Your task to perform on an android device: Open Google Chrome and open the bookmarks view Image 0: 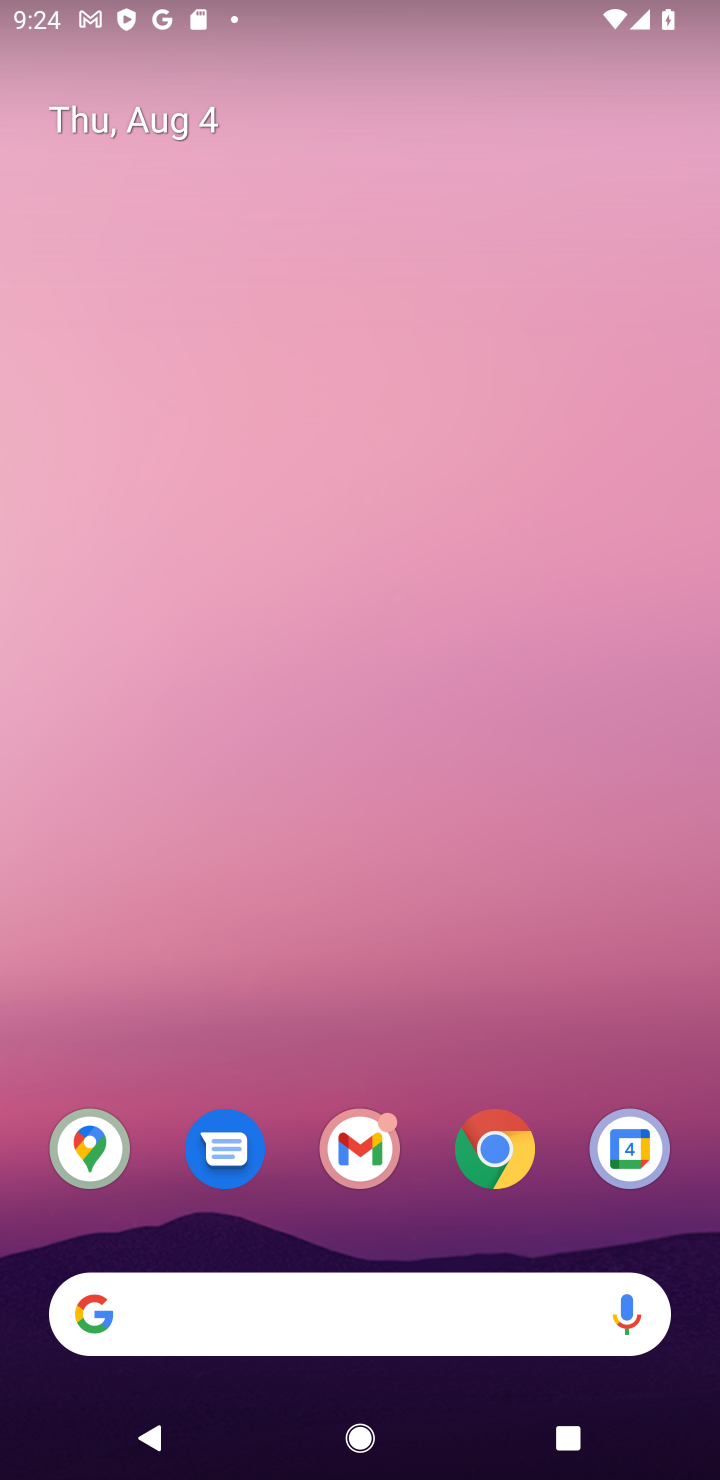
Step 0: click (492, 1137)
Your task to perform on an android device: Open Google Chrome and open the bookmarks view Image 1: 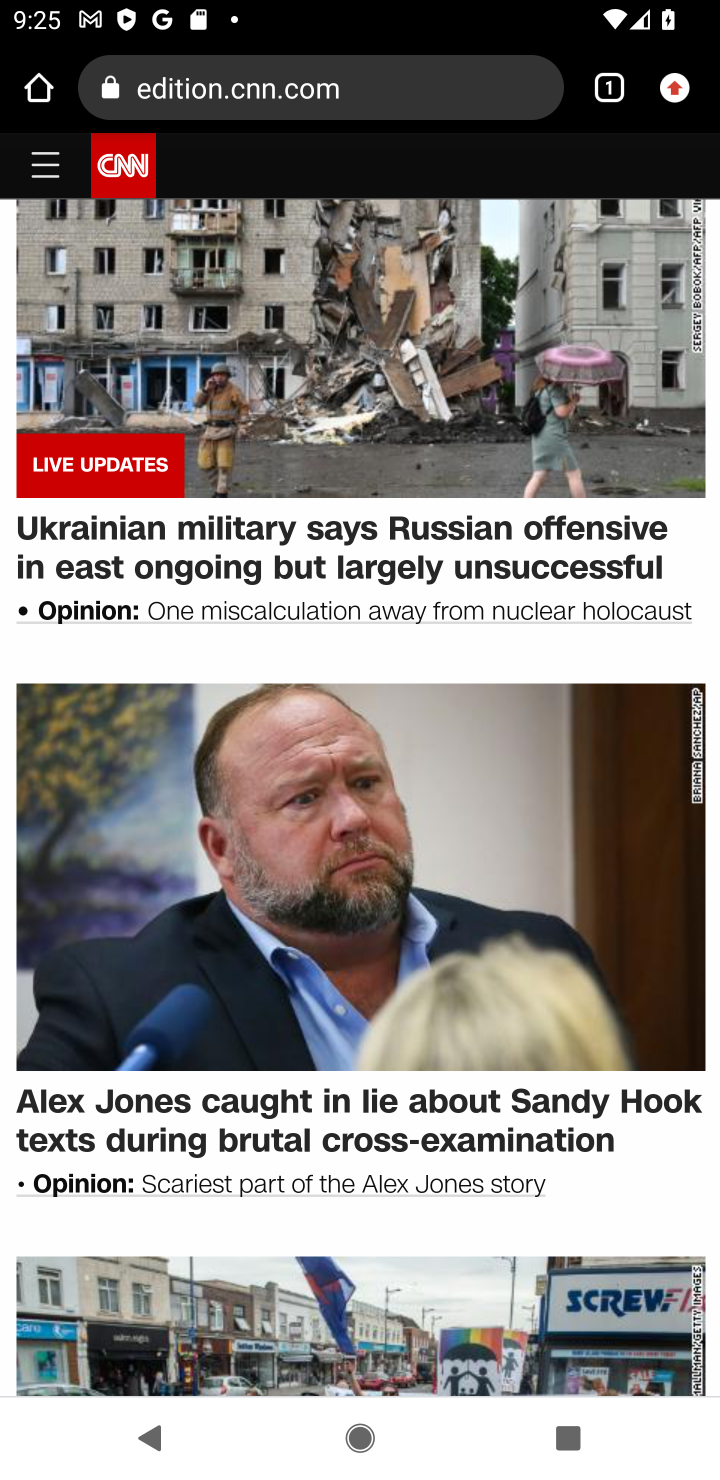
Step 1: click (663, 107)
Your task to perform on an android device: Open Google Chrome and open the bookmarks view Image 2: 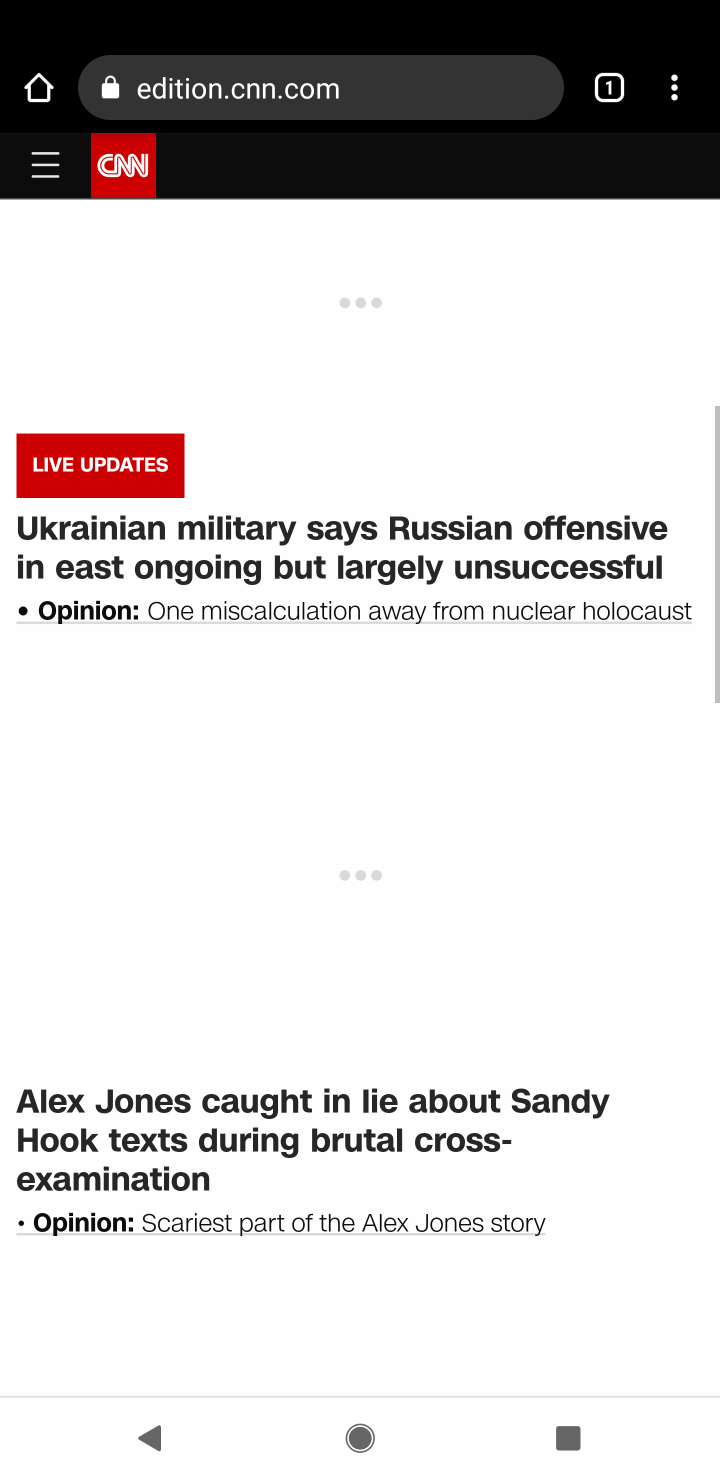
Step 2: click (666, 103)
Your task to perform on an android device: Open Google Chrome and open the bookmarks view Image 3: 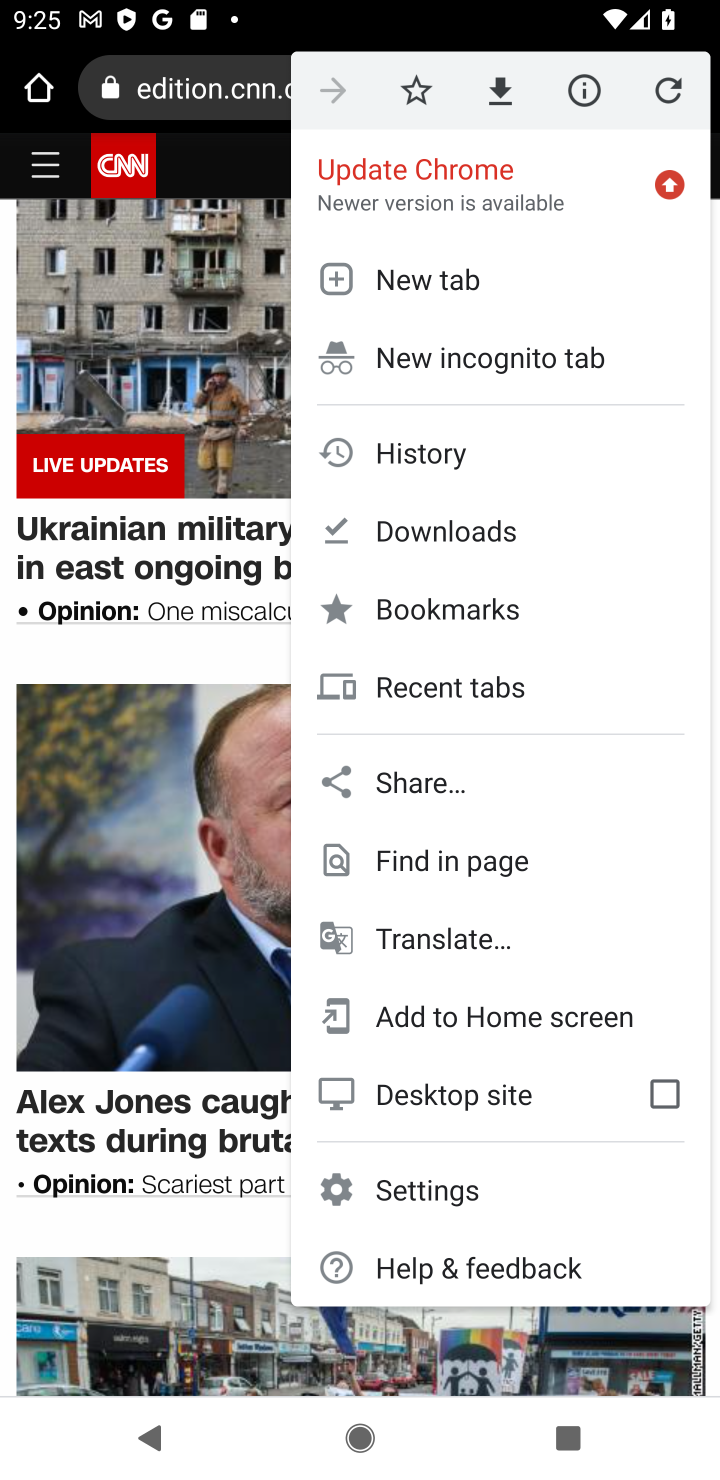
Step 3: click (426, 613)
Your task to perform on an android device: Open Google Chrome and open the bookmarks view Image 4: 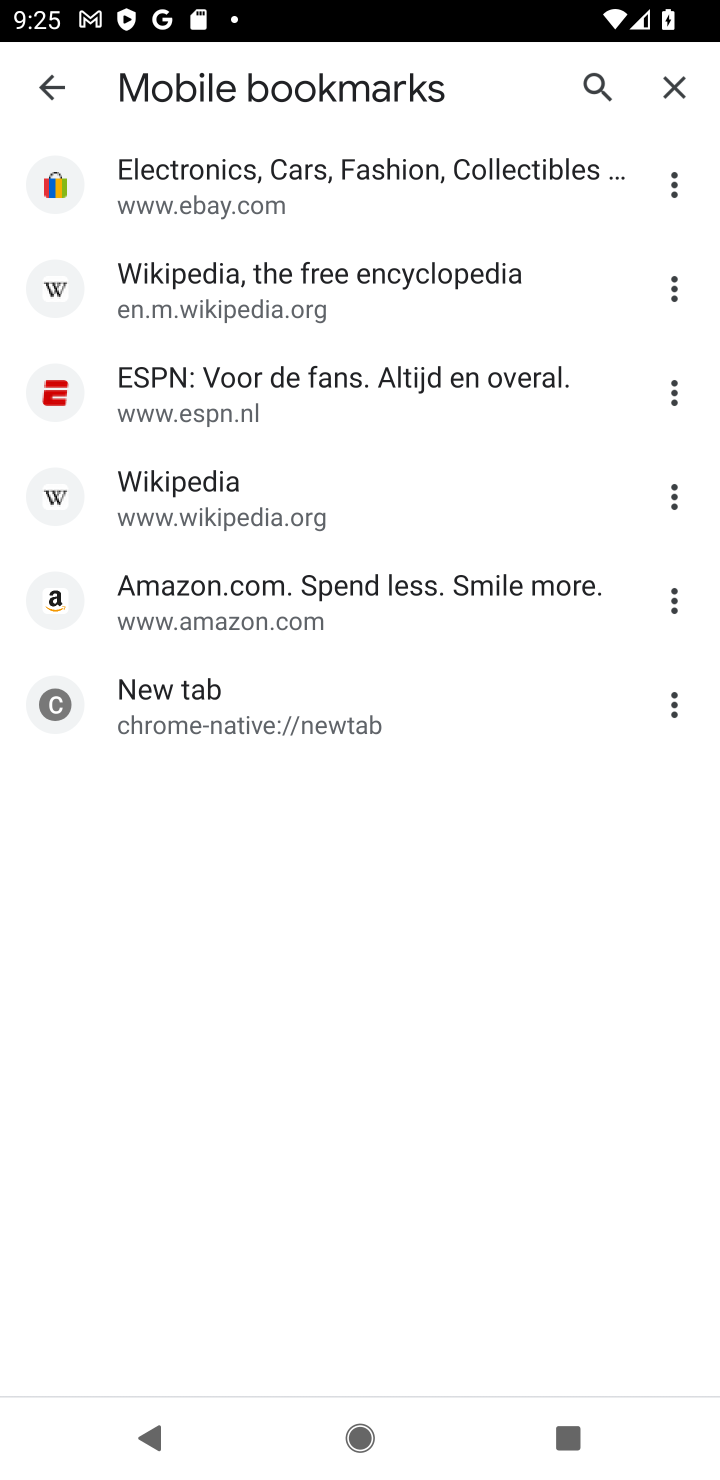
Step 4: task complete